Your task to perform on an android device: What's the weather? Image 0: 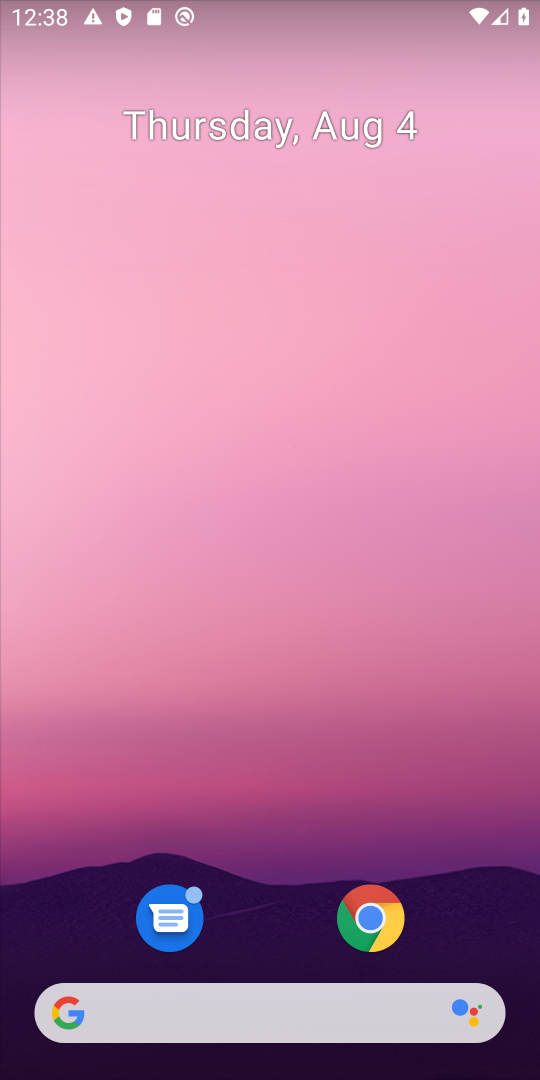
Step 0: drag from (257, 905) to (307, 454)
Your task to perform on an android device: What's the weather? Image 1: 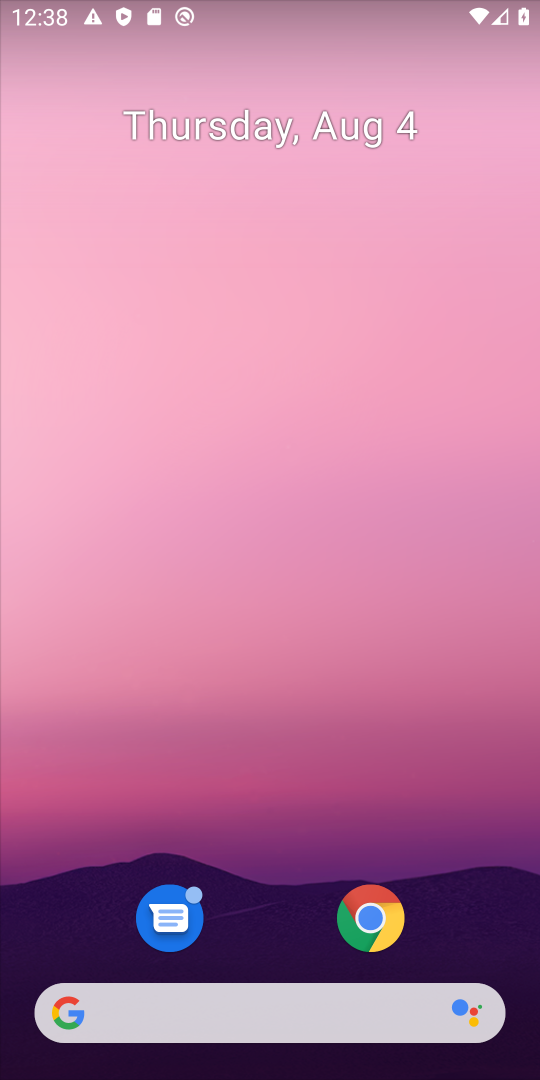
Step 1: drag from (282, 893) to (290, 246)
Your task to perform on an android device: What's the weather? Image 2: 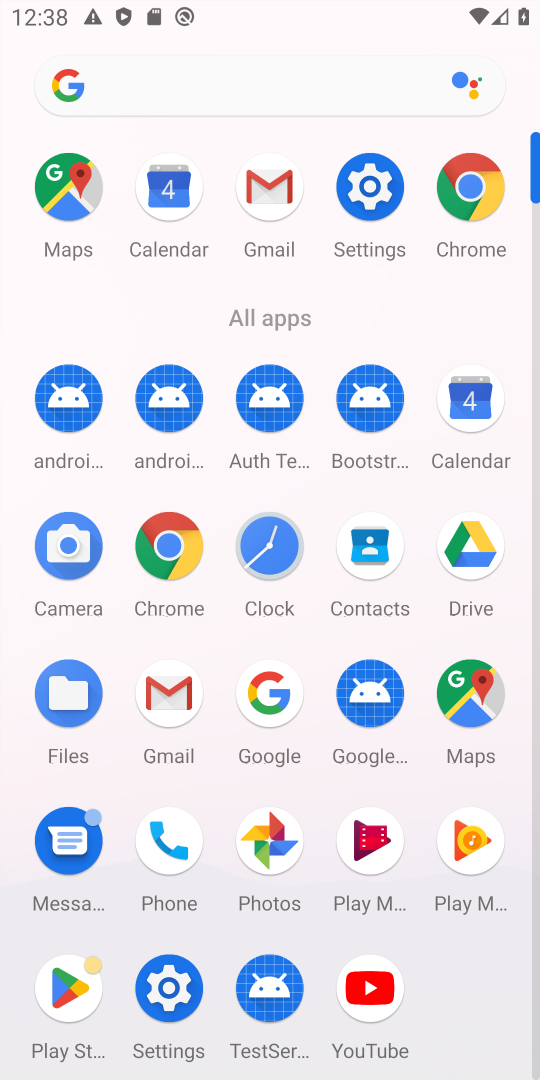
Step 2: click (251, 693)
Your task to perform on an android device: What's the weather? Image 3: 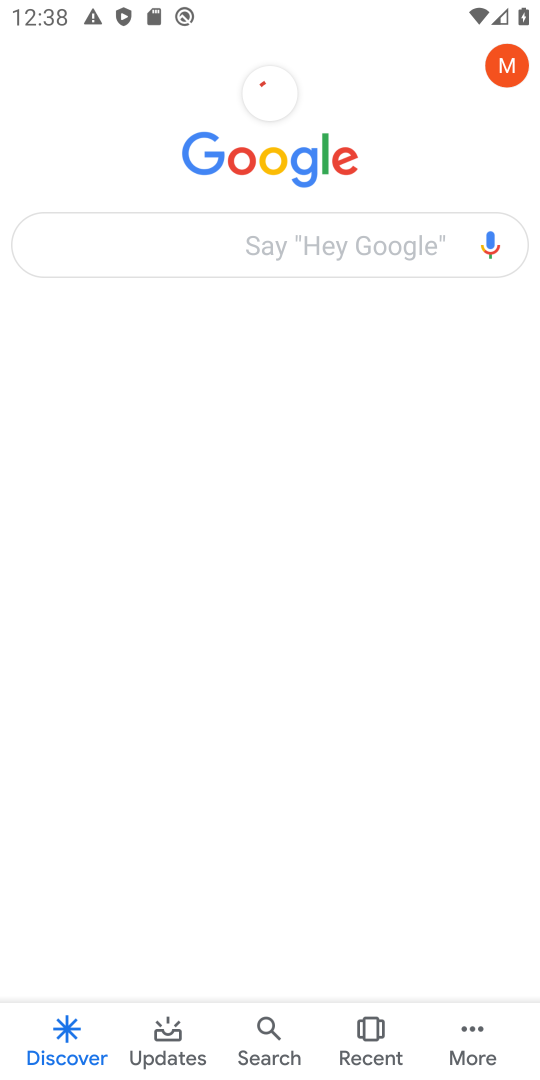
Step 3: click (187, 256)
Your task to perform on an android device: What's the weather? Image 4: 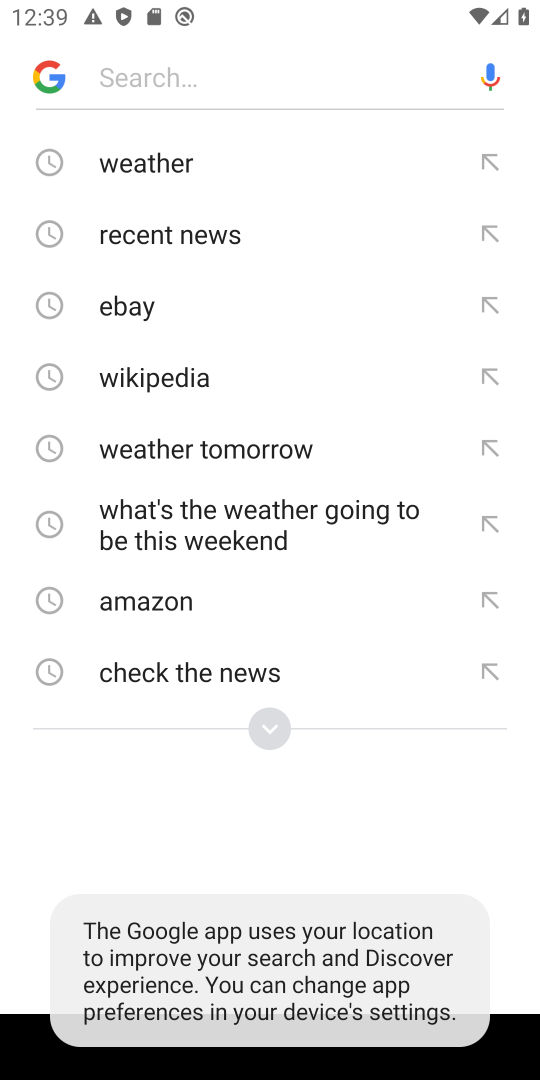
Step 4: click (221, 155)
Your task to perform on an android device: What's the weather? Image 5: 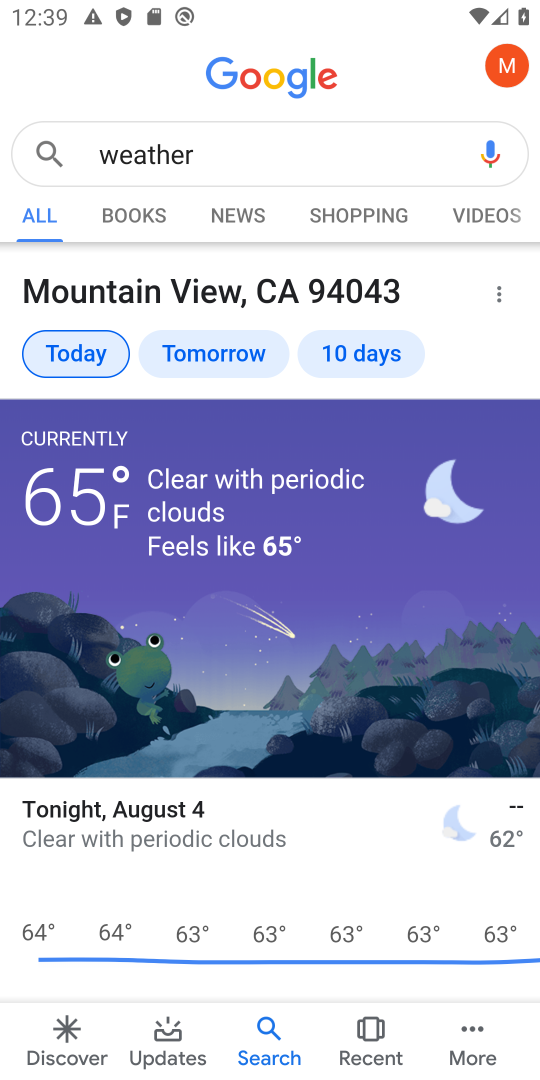
Step 5: task complete